Your task to perform on an android device: turn off improve location accuracy Image 0: 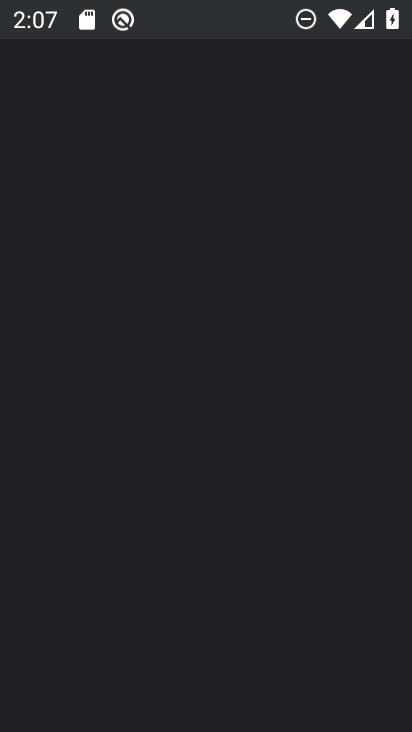
Step 0: drag from (353, 552) to (335, 359)
Your task to perform on an android device: turn off improve location accuracy Image 1: 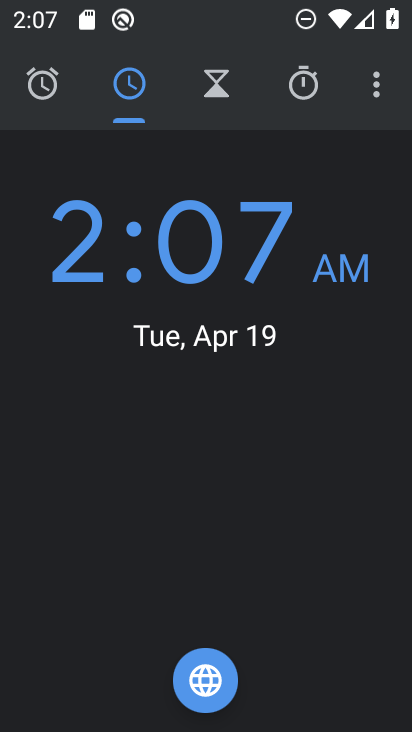
Step 1: click (335, 359)
Your task to perform on an android device: turn off improve location accuracy Image 2: 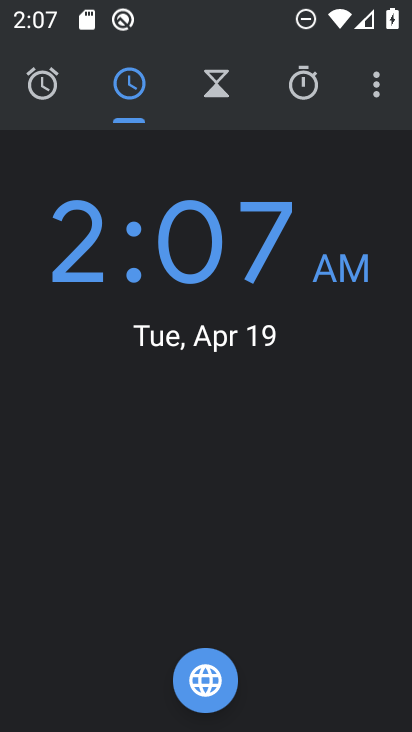
Step 2: click (333, 365)
Your task to perform on an android device: turn off improve location accuracy Image 3: 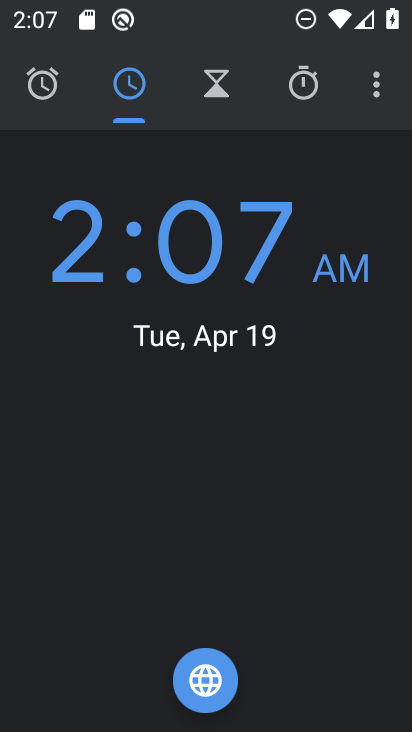
Step 3: press home button
Your task to perform on an android device: turn off improve location accuracy Image 4: 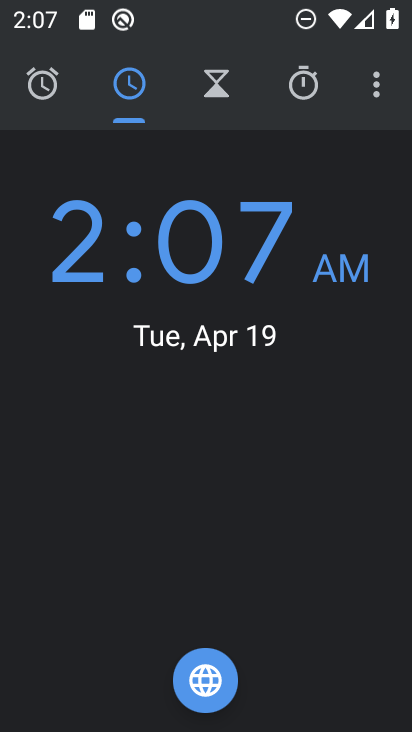
Step 4: click (334, 363)
Your task to perform on an android device: turn off improve location accuracy Image 5: 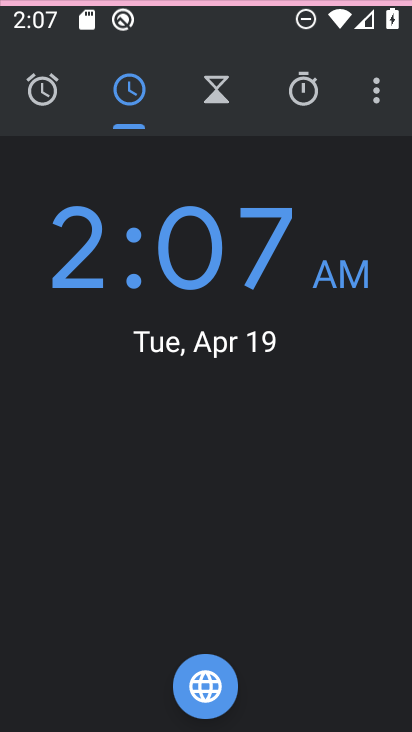
Step 5: press home button
Your task to perform on an android device: turn off improve location accuracy Image 6: 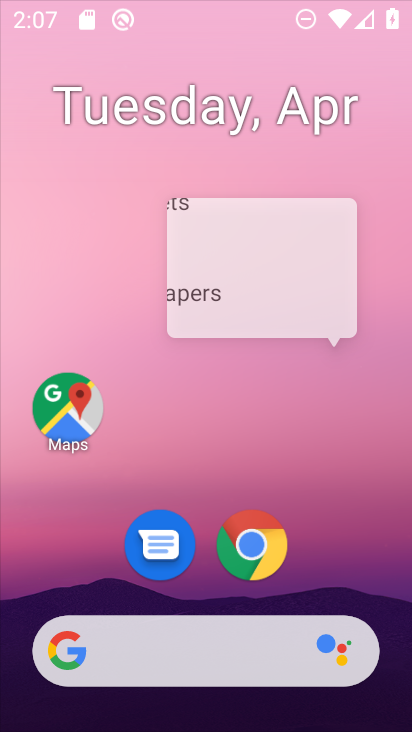
Step 6: drag from (334, 363) to (398, 436)
Your task to perform on an android device: turn off improve location accuracy Image 7: 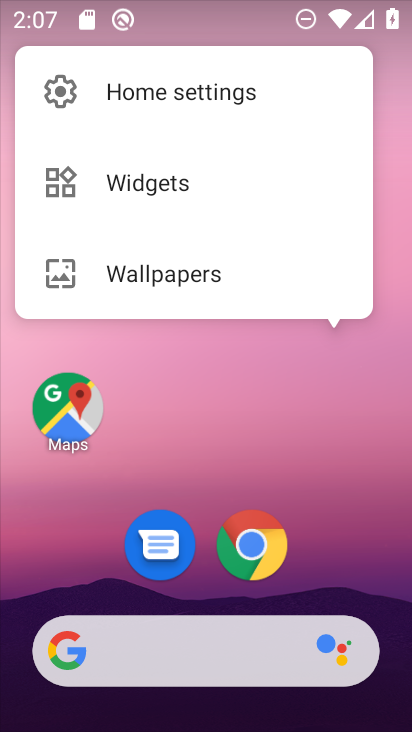
Step 7: click (369, 444)
Your task to perform on an android device: turn off improve location accuracy Image 8: 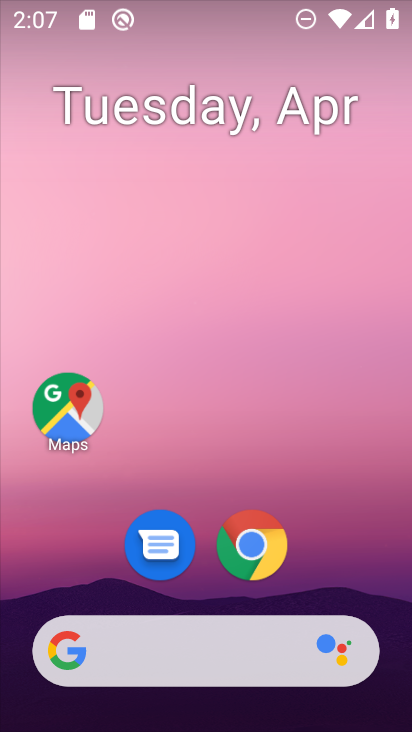
Step 8: drag from (399, 526) to (312, 222)
Your task to perform on an android device: turn off improve location accuracy Image 9: 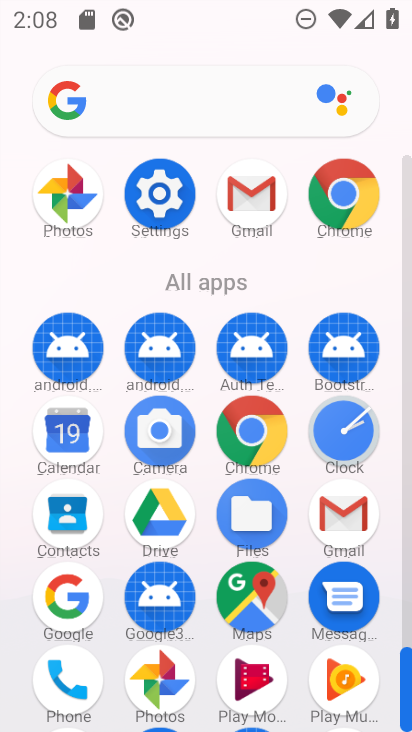
Step 9: click (261, 601)
Your task to perform on an android device: turn off improve location accuracy Image 10: 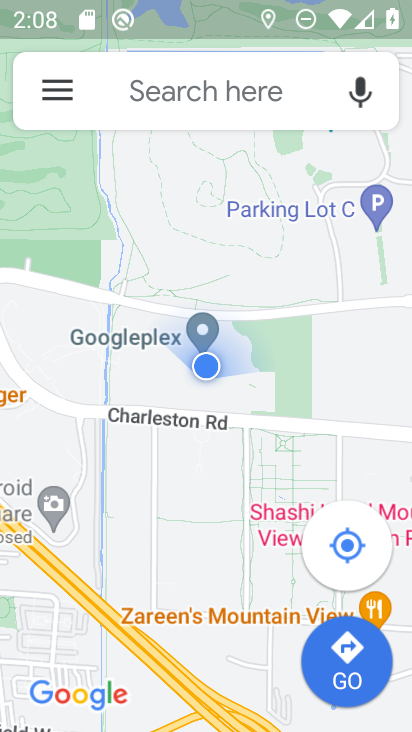
Step 10: click (67, 102)
Your task to perform on an android device: turn off improve location accuracy Image 11: 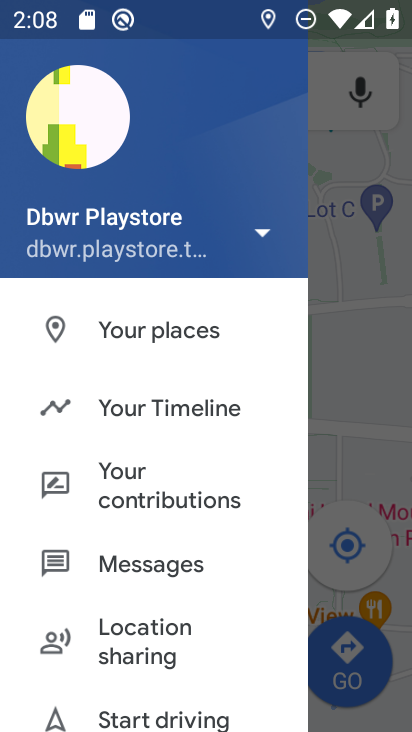
Step 11: click (165, 413)
Your task to perform on an android device: turn off improve location accuracy Image 12: 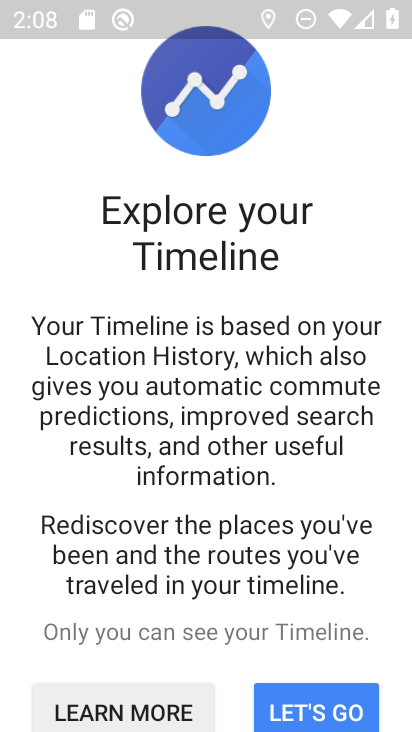
Step 12: drag from (291, 621) to (334, 135)
Your task to perform on an android device: turn off improve location accuracy Image 13: 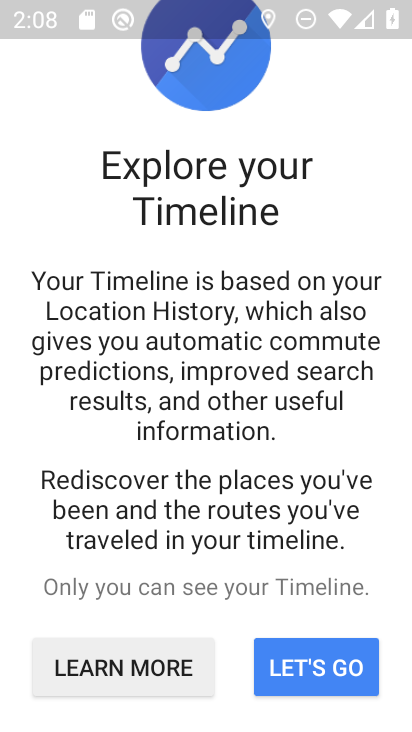
Step 13: click (319, 659)
Your task to perform on an android device: turn off improve location accuracy Image 14: 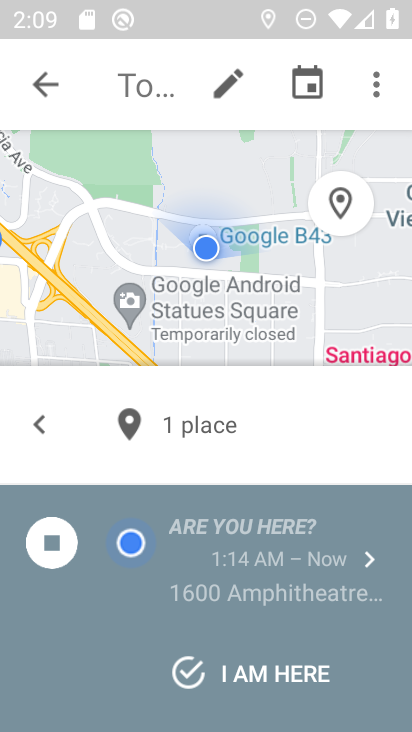
Step 14: click (381, 75)
Your task to perform on an android device: turn off improve location accuracy Image 15: 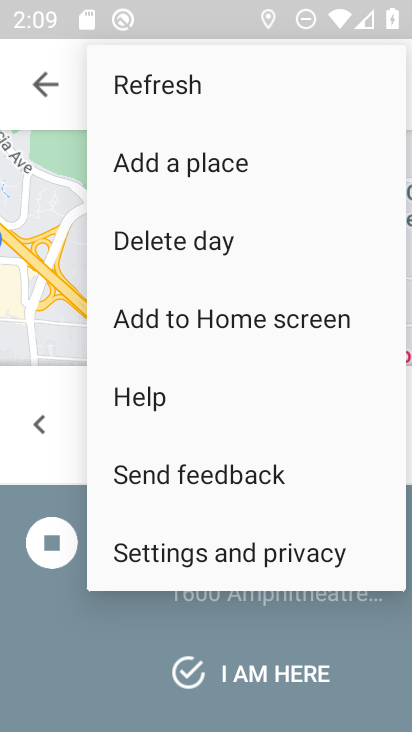
Step 15: click (279, 545)
Your task to perform on an android device: turn off improve location accuracy Image 16: 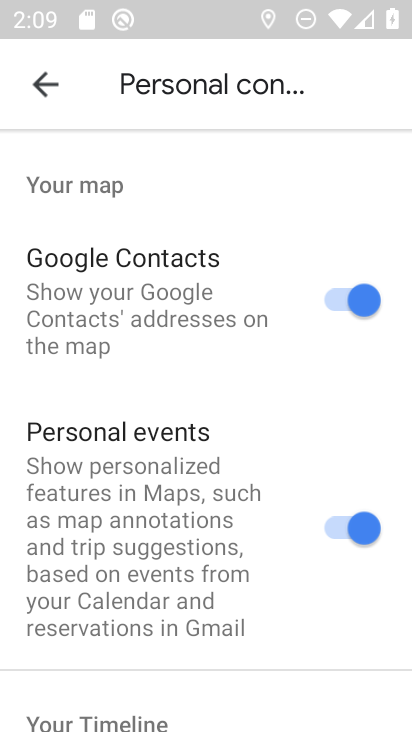
Step 16: drag from (260, 673) to (253, 191)
Your task to perform on an android device: turn off improve location accuracy Image 17: 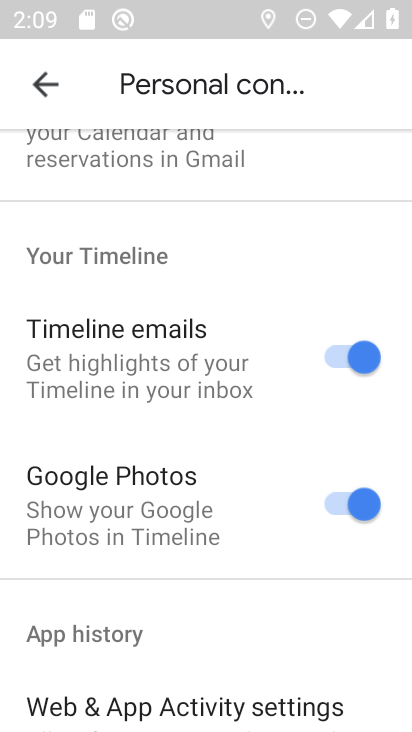
Step 17: drag from (240, 556) to (241, 88)
Your task to perform on an android device: turn off improve location accuracy Image 18: 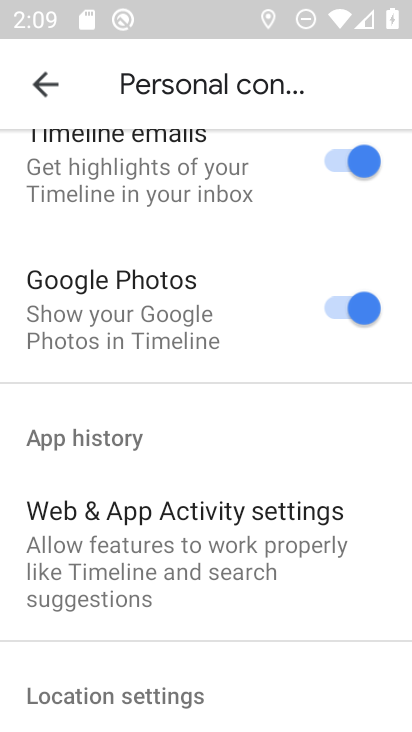
Step 18: drag from (266, 454) to (270, 70)
Your task to perform on an android device: turn off improve location accuracy Image 19: 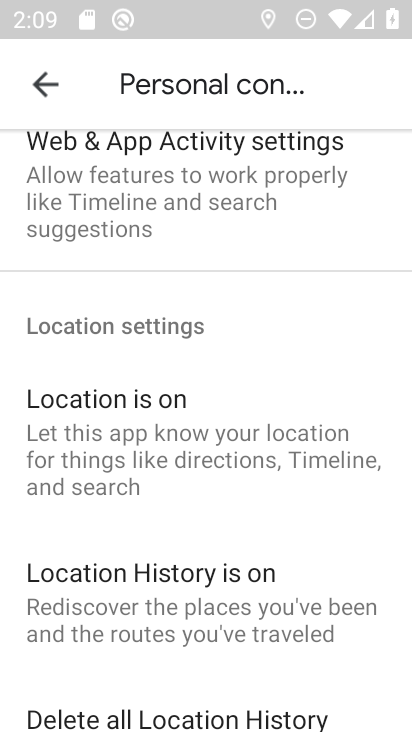
Step 19: click (280, 592)
Your task to perform on an android device: turn off improve location accuracy Image 20: 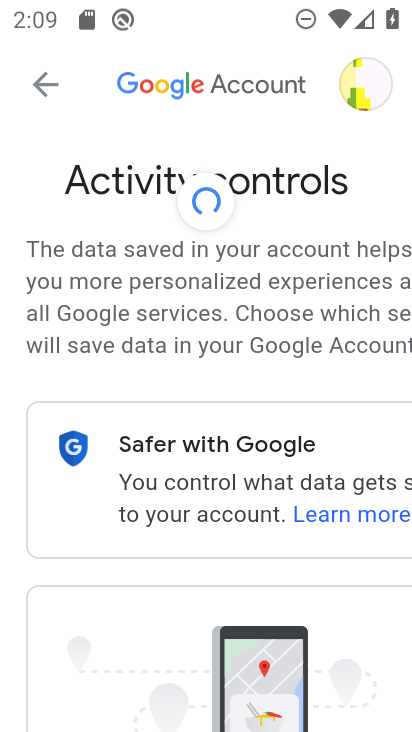
Step 20: drag from (293, 584) to (299, 186)
Your task to perform on an android device: turn off improve location accuracy Image 21: 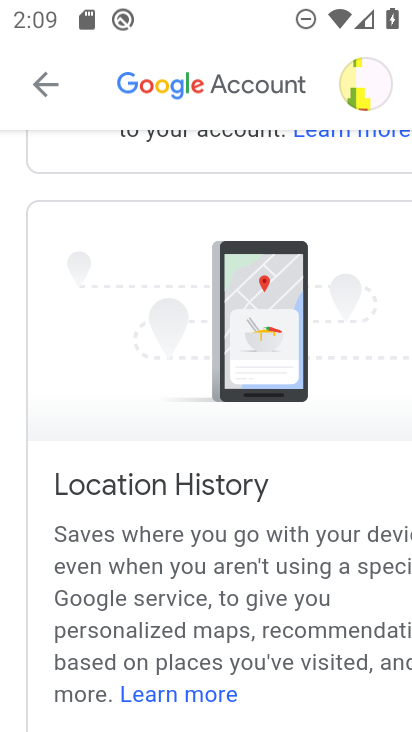
Step 21: drag from (333, 520) to (308, 239)
Your task to perform on an android device: turn off improve location accuracy Image 22: 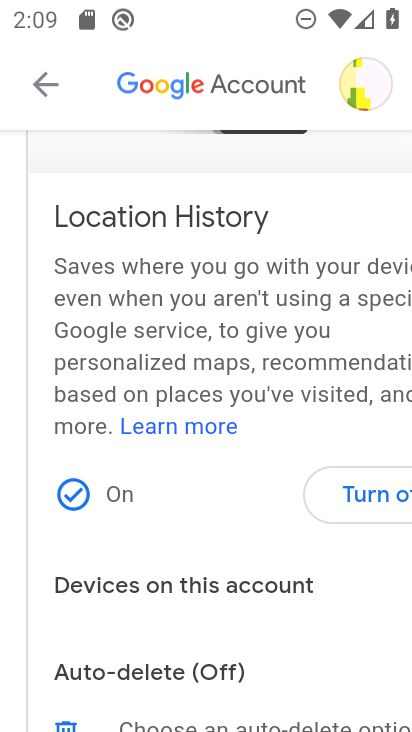
Step 22: click (396, 497)
Your task to perform on an android device: turn off improve location accuracy Image 23: 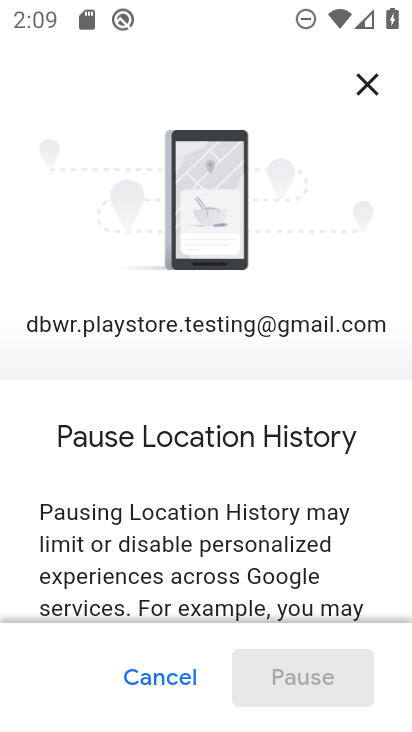
Step 23: drag from (351, 578) to (246, 130)
Your task to perform on an android device: turn off improve location accuracy Image 24: 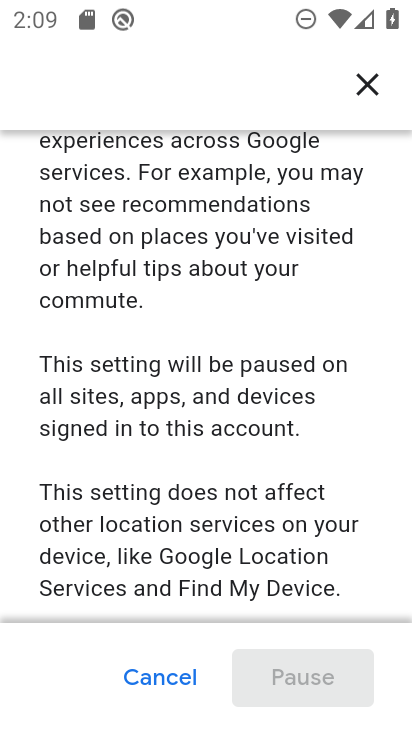
Step 24: drag from (350, 460) to (253, 119)
Your task to perform on an android device: turn off improve location accuracy Image 25: 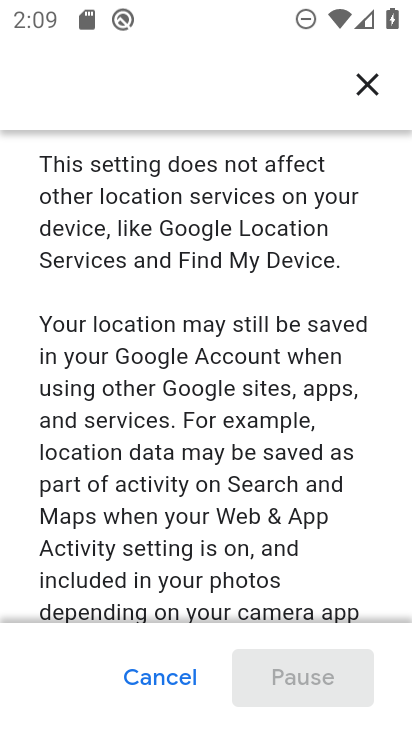
Step 25: drag from (357, 556) to (293, 229)
Your task to perform on an android device: turn off improve location accuracy Image 26: 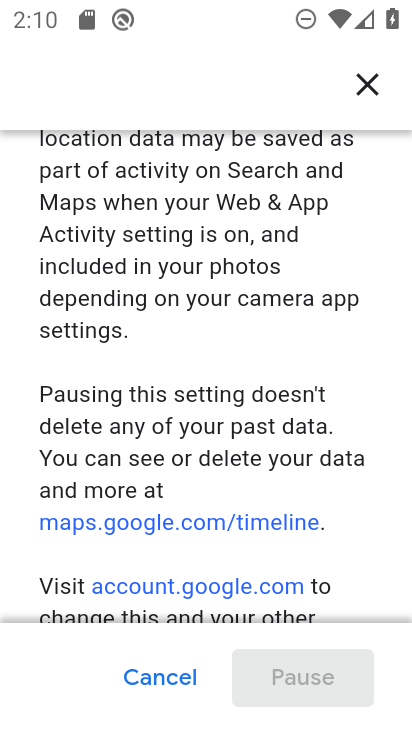
Step 26: drag from (351, 447) to (277, 154)
Your task to perform on an android device: turn off improve location accuracy Image 27: 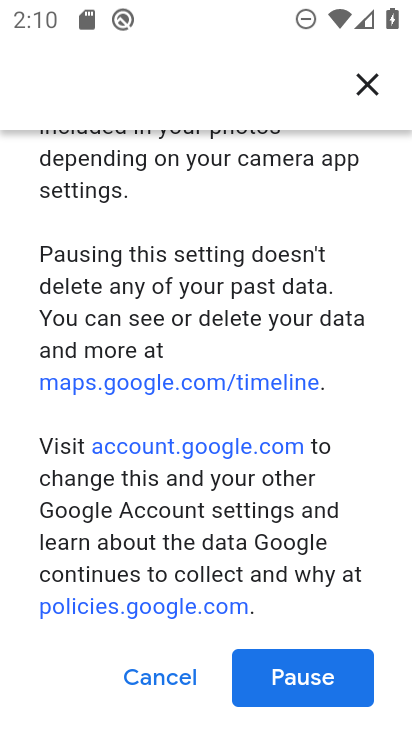
Step 27: click (333, 665)
Your task to perform on an android device: turn off improve location accuracy Image 28: 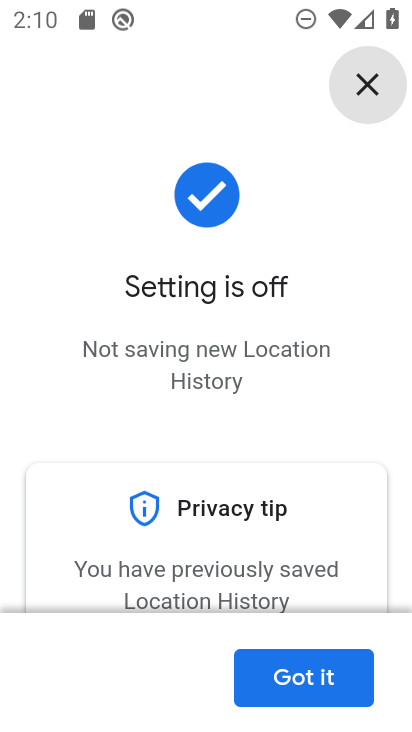
Step 28: click (319, 679)
Your task to perform on an android device: turn off improve location accuracy Image 29: 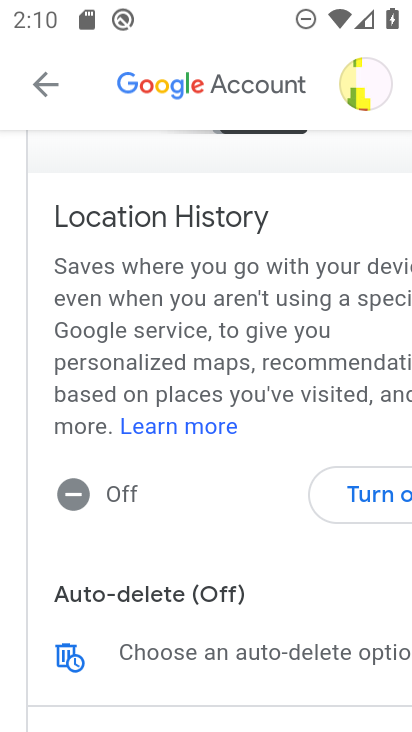
Step 29: task complete